Your task to perform on an android device: Search for vegetarian restaurants on Maps Image 0: 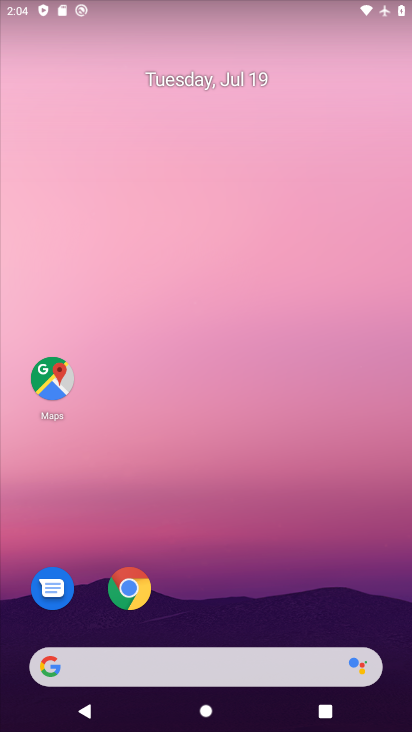
Step 0: press home button
Your task to perform on an android device: Search for vegetarian restaurants on Maps Image 1: 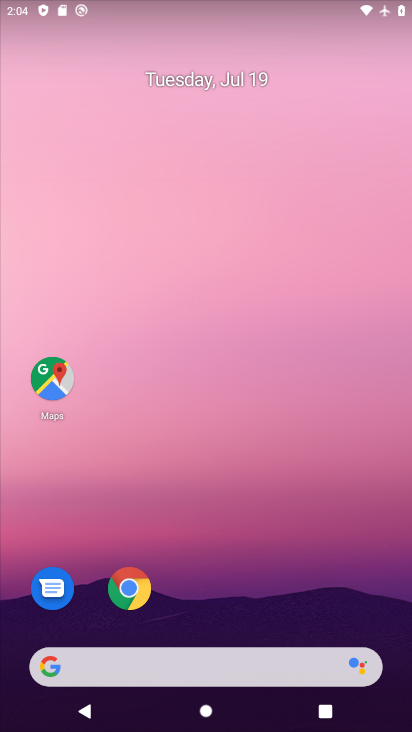
Step 1: drag from (278, 627) to (260, 252)
Your task to perform on an android device: Search for vegetarian restaurants on Maps Image 2: 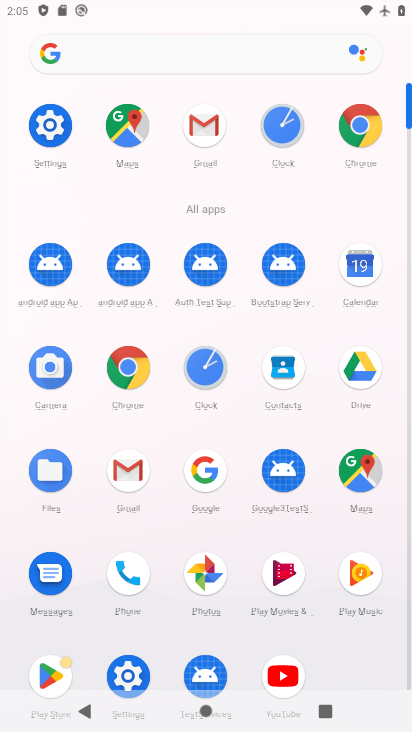
Step 2: click (133, 122)
Your task to perform on an android device: Search for vegetarian restaurants on Maps Image 3: 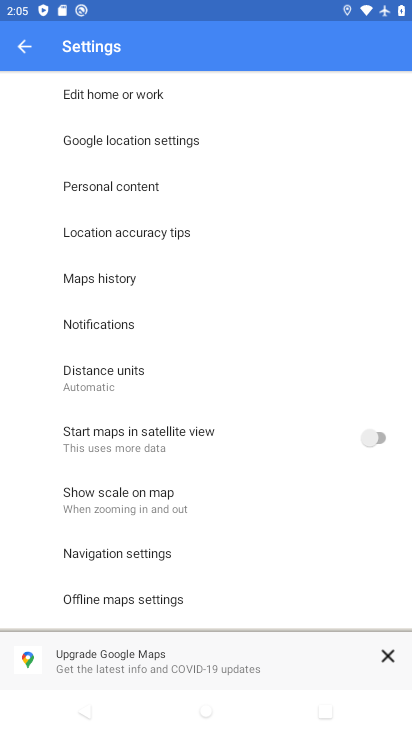
Step 3: click (23, 48)
Your task to perform on an android device: Search for vegetarian restaurants on Maps Image 4: 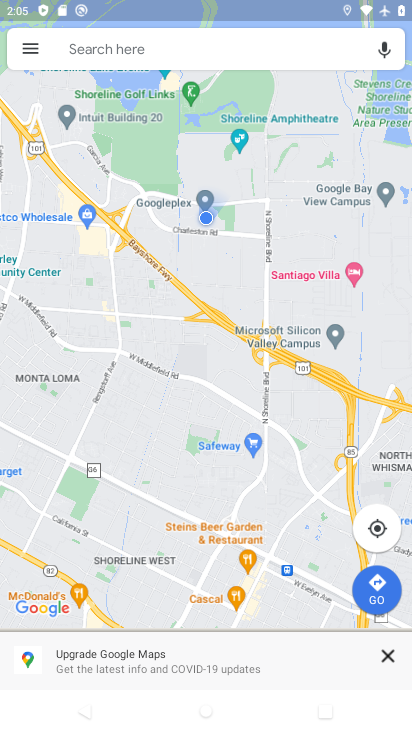
Step 4: click (162, 31)
Your task to perform on an android device: Search for vegetarian restaurants on Maps Image 5: 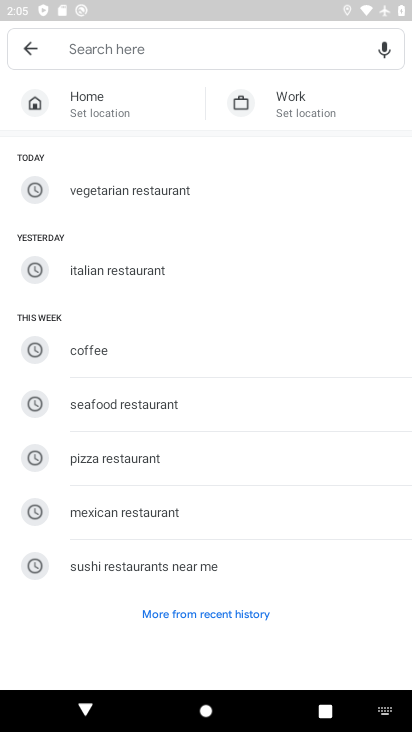
Step 5: click (140, 192)
Your task to perform on an android device: Search for vegetarian restaurants on Maps Image 6: 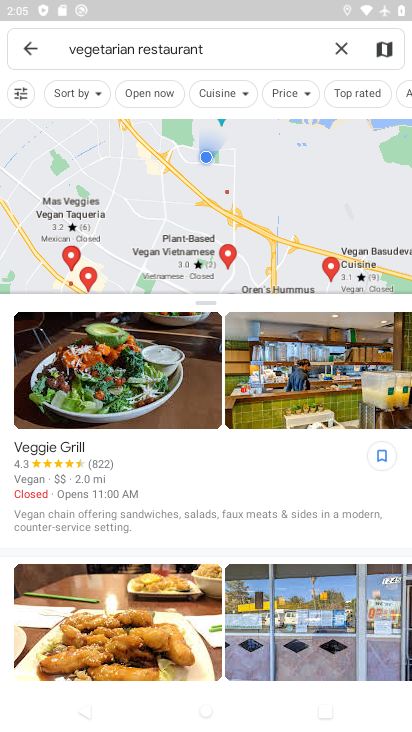
Step 6: task complete